Your task to perform on an android device: turn off priority inbox in the gmail app Image 0: 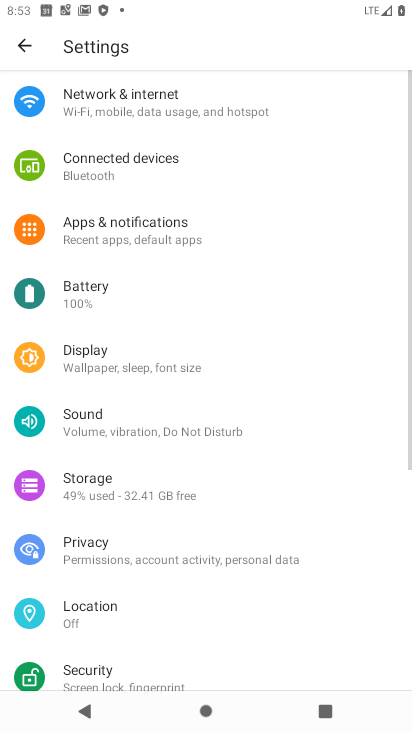
Step 0: press home button
Your task to perform on an android device: turn off priority inbox in the gmail app Image 1: 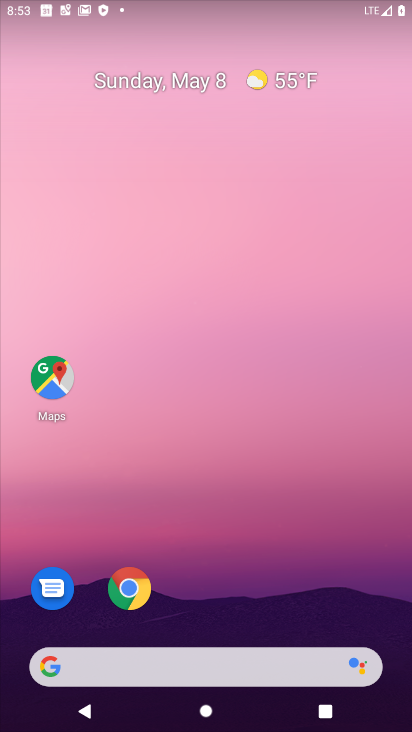
Step 1: drag from (329, 607) to (303, 27)
Your task to perform on an android device: turn off priority inbox in the gmail app Image 2: 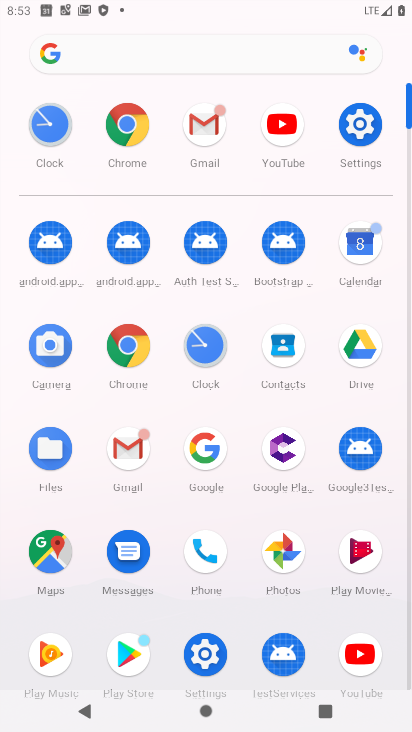
Step 2: click (126, 456)
Your task to perform on an android device: turn off priority inbox in the gmail app Image 3: 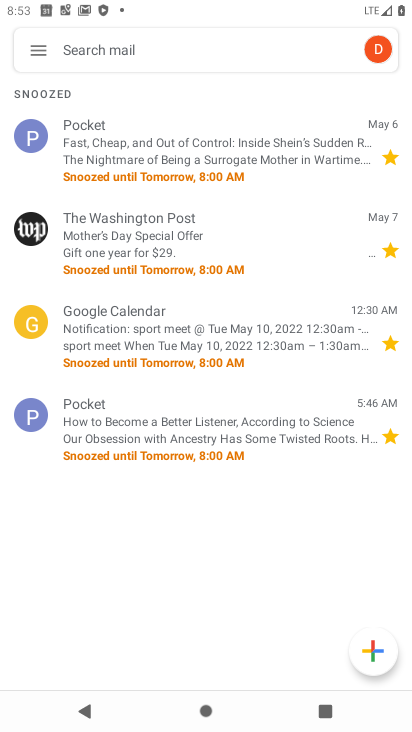
Step 3: click (37, 48)
Your task to perform on an android device: turn off priority inbox in the gmail app Image 4: 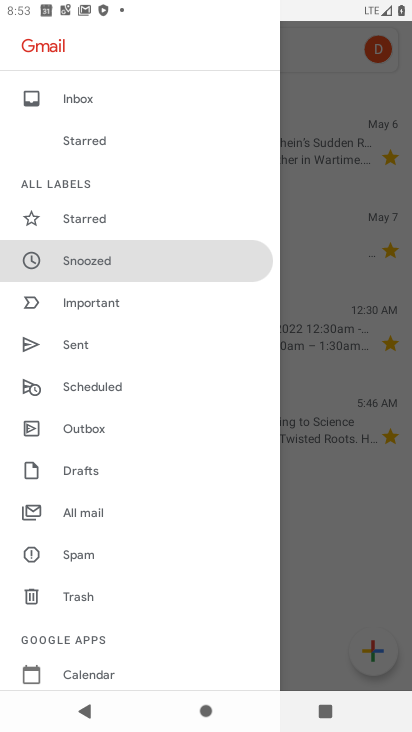
Step 4: drag from (94, 612) to (172, 139)
Your task to perform on an android device: turn off priority inbox in the gmail app Image 5: 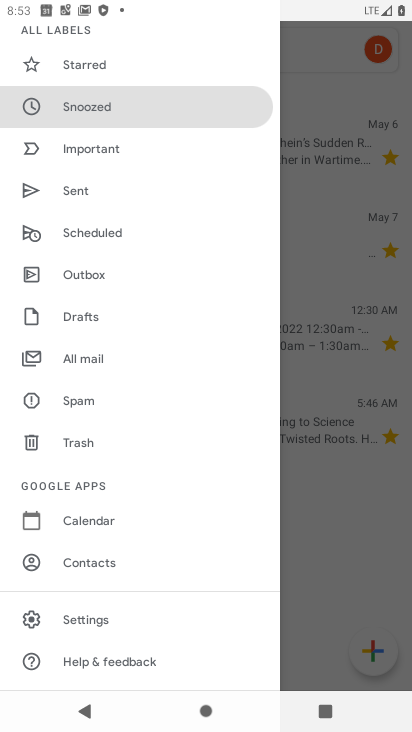
Step 5: click (127, 626)
Your task to perform on an android device: turn off priority inbox in the gmail app Image 6: 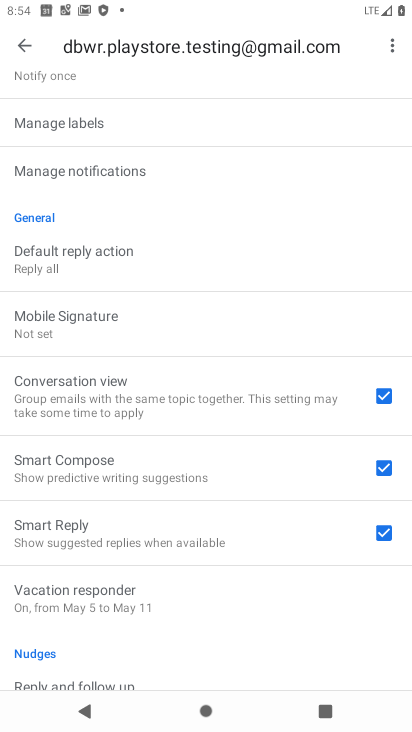
Step 6: drag from (125, 626) to (230, 138)
Your task to perform on an android device: turn off priority inbox in the gmail app Image 7: 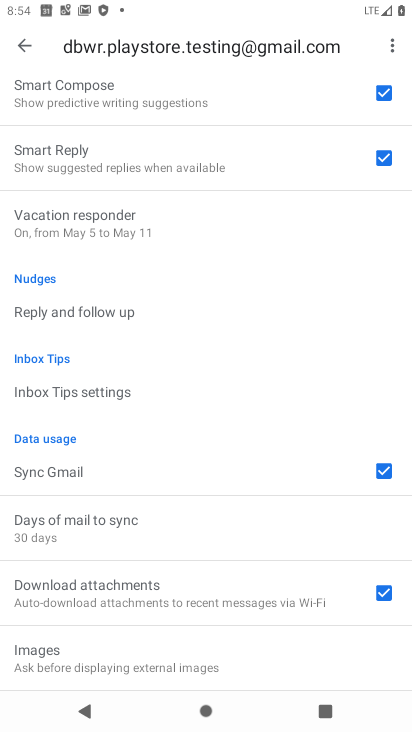
Step 7: drag from (175, 595) to (233, 112)
Your task to perform on an android device: turn off priority inbox in the gmail app Image 8: 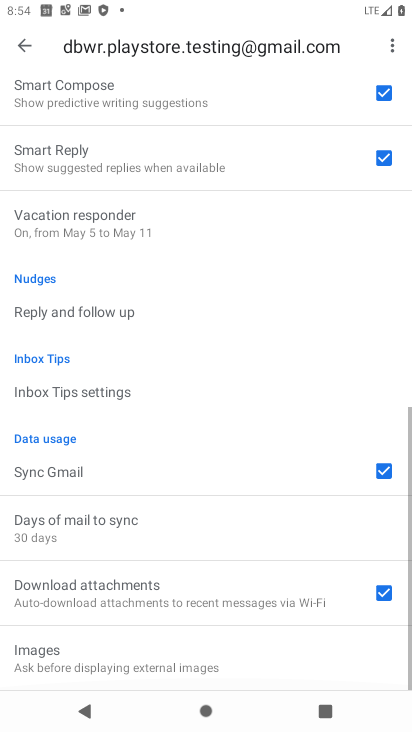
Step 8: drag from (236, 175) to (263, 685)
Your task to perform on an android device: turn off priority inbox in the gmail app Image 9: 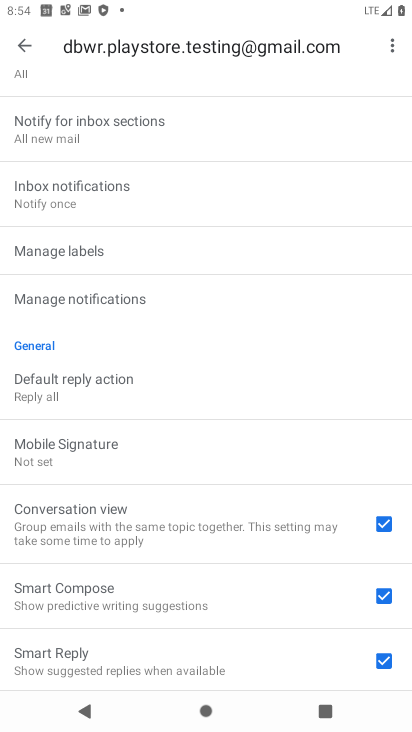
Step 9: drag from (174, 250) to (201, 684)
Your task to perform on an android device: turn off priority inbox in the gmail app Image 10: 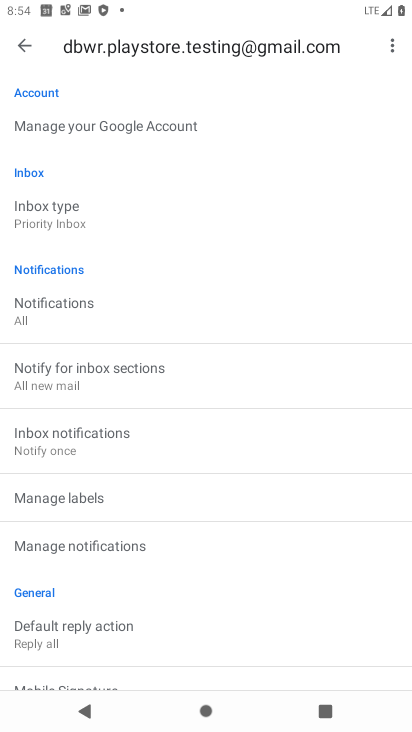
Step 10: click (95, 226)
Your task to perform on an android device: turn off priority inbox in the gmail app Image 11: 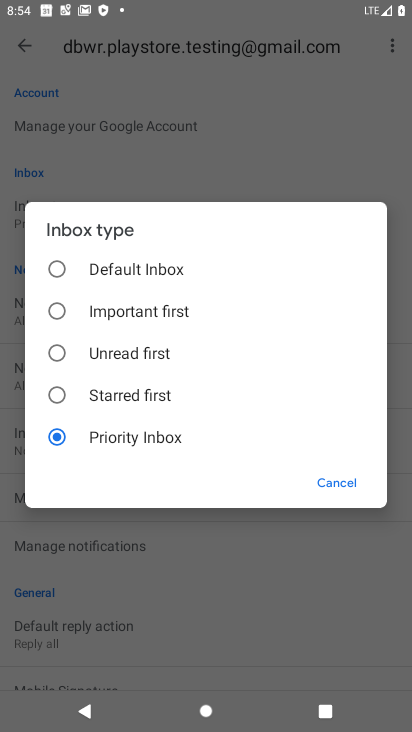
Step 11: click (134, 312)
Your task to perform on an android device: turn off priority inbox in the gmail app Image 12: 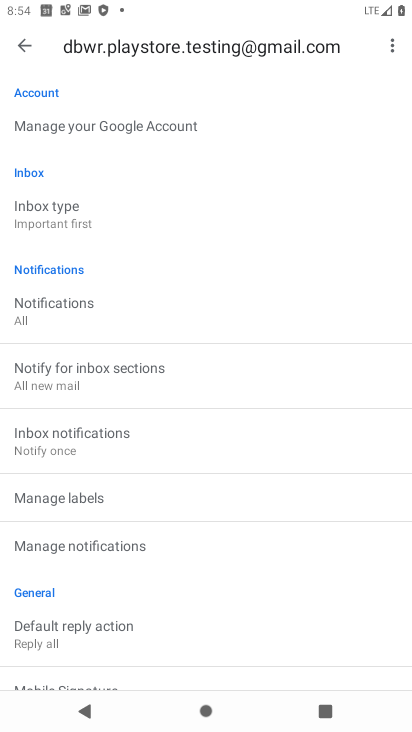
Step 12: task complete